Your task to perform on an android device: star an email in the gmail app Image 0: 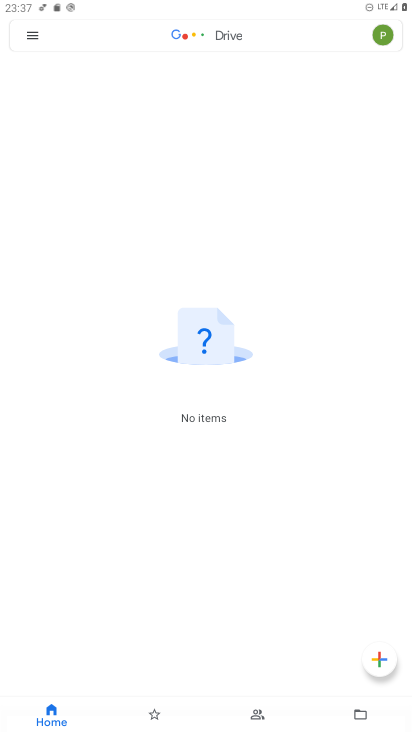
Step 0: press home button
Your task to perform on an android device: star an email in the gmail app Image 1: 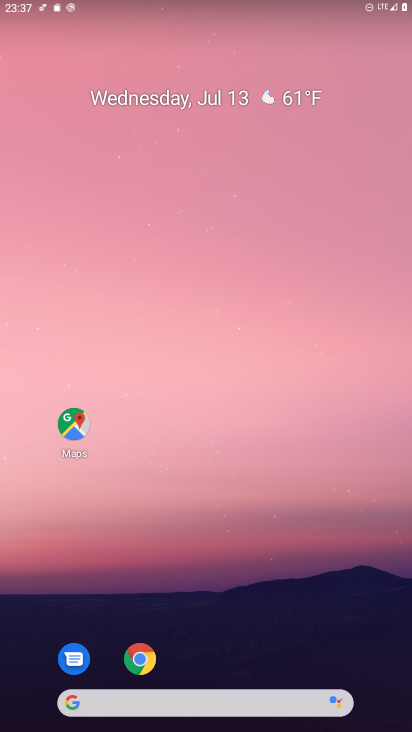
Step 1: drag from (345, 624) to (296, 163)
Your task to perform on an android device: star an email in the gmail app Image 2: 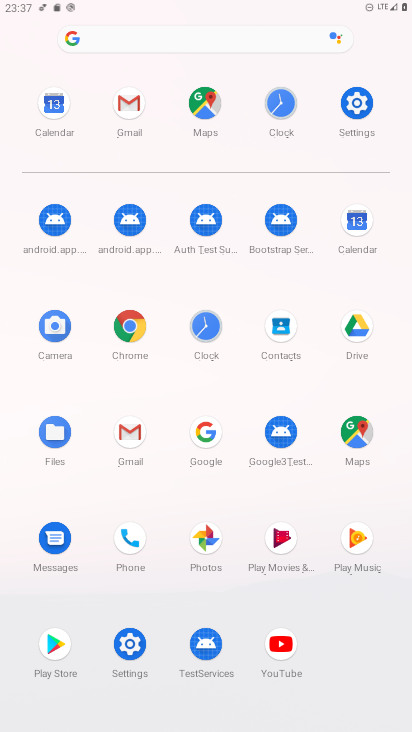
Step 2: click (128, 427)
Your task to perform on an android device: star an email in the gmail app Image 3: 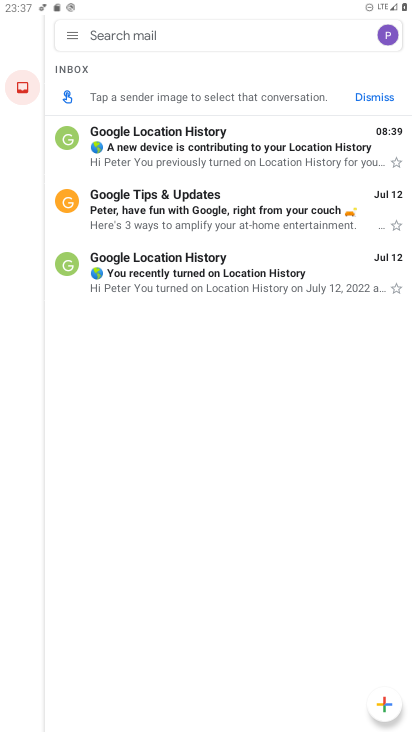
Step 3: click (254, 146)
Your task to perform on an android device: star an email in the gmail app Image 4: 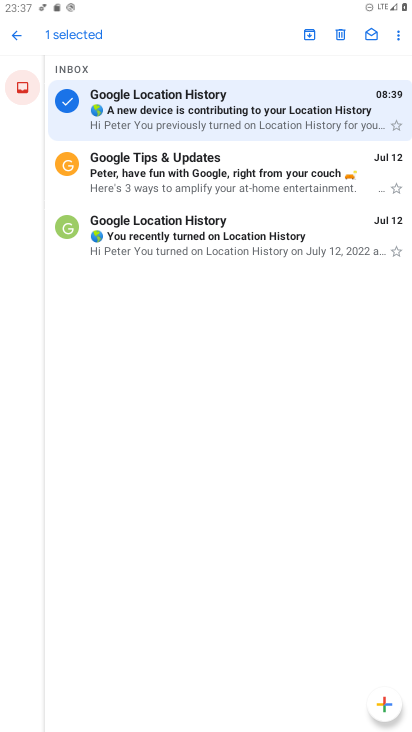
Step 4: click (399, 39)
Your task to perform on an android device: star an email in the gmail app Image 5: 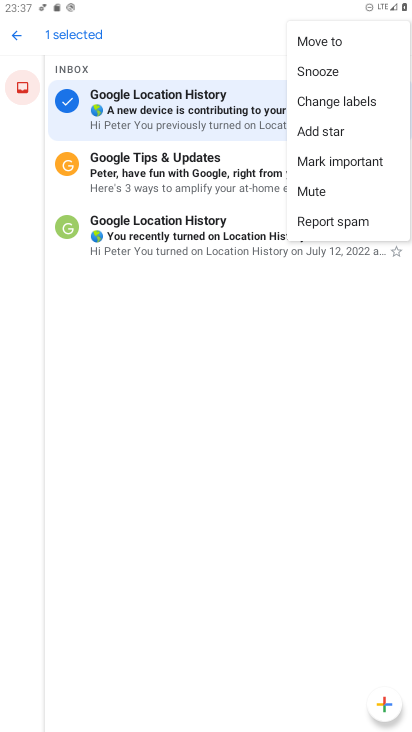
Step 5: click (306, 373)
Your task to perform on an android device: star an email in the gmail app Image 6: 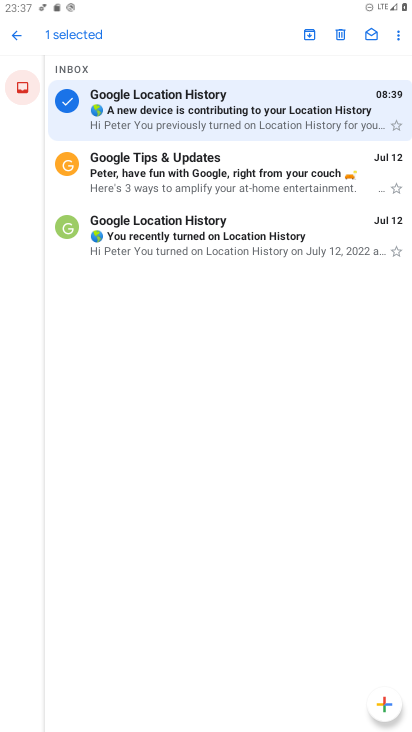
Step 6: click (391, 121)
Your task to perform on an android device: star an email in the gmail app Image 7: 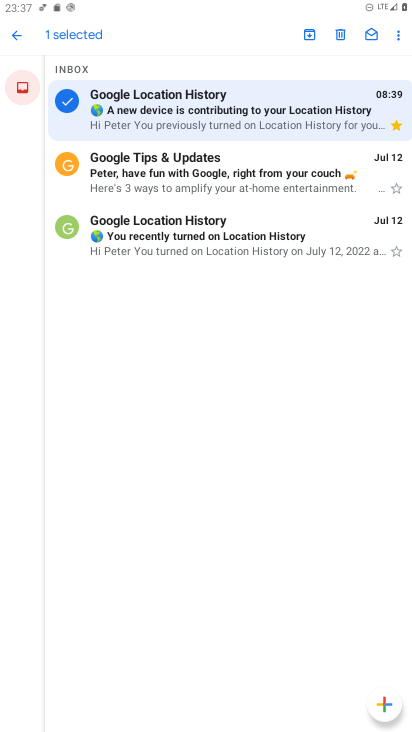
Step 7: task complete